Your task to perform on an android device: Search for a nightstand on IKEA. Image 0: 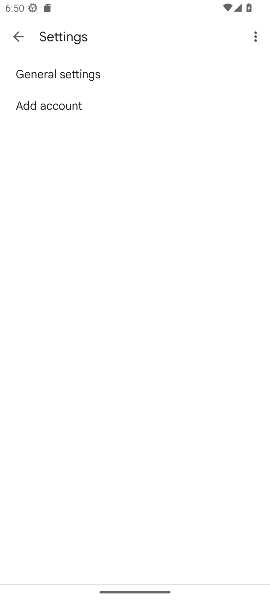
Step 0: press home button
Your task to perform on an android device: Search for a nightstand on IKEA. Image 1: 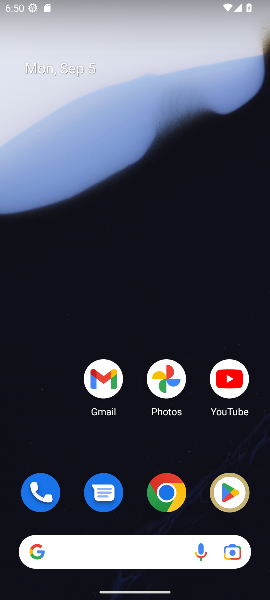
Step 1: drag from (123, 444) to (139, 163)
Your task to perform on an android device: Search for a nightstand on IKEA. Image 2: 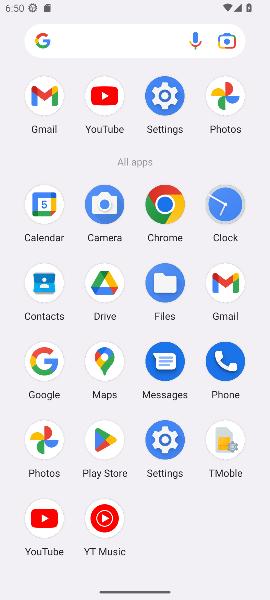
Step 2: drag from (53, 352) to (207, 274)
Your task to perform on an android device: Search for a nightstand on IKEA. Image 3: 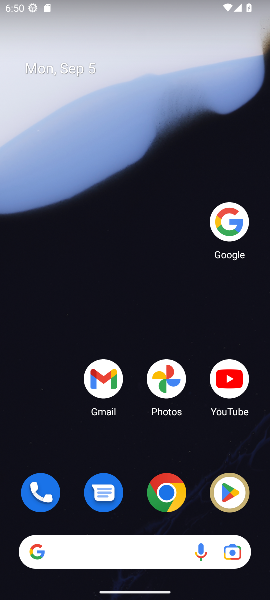
Step 3: click (227, 217)
Your task to perform on an android device: Search for a nightstand on IKEA. Image 4: 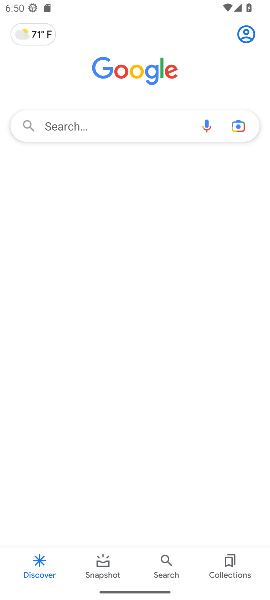
Step 4: click (129, 123)
Your task to perform on an android device: Search for a nightstand on IKEA. Image 5: 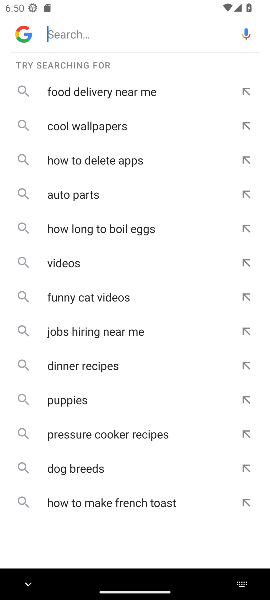
Step 5: type "nightstand on IKEA "
Your task to perform on an android device: Search for a nightstand on IKEA. Image 6: 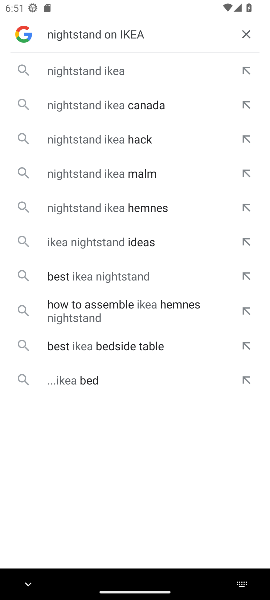
Step 6: click (81, 73)
Your task to perform on an android device: Search for a nightstand on IKEA. Image 7: 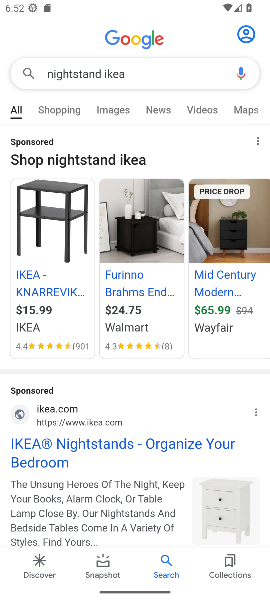
Step 7: task complete